Your task to perform on an android device: refresh tabs in the chrome app Image 0: 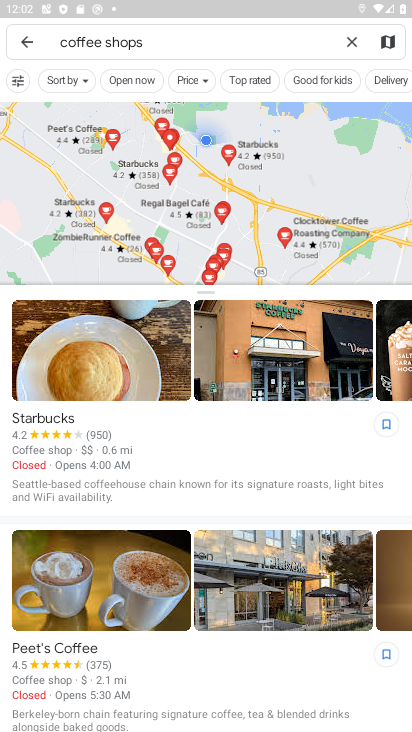
Step 0: press home button
Your task to perform on an android device: refresh tabs in the chrome app Image 1: 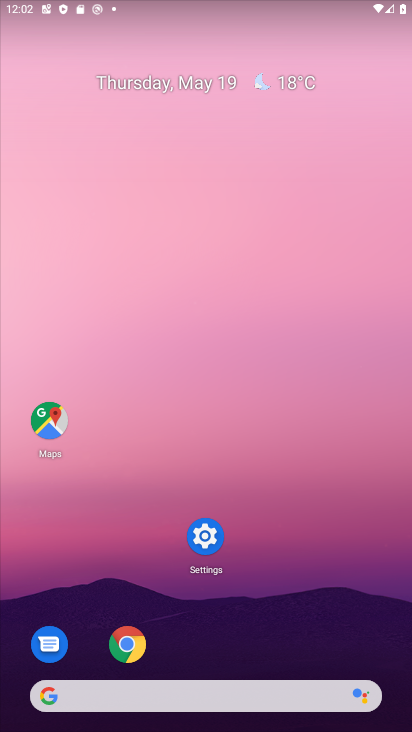
Step 1: click (124, 644)
Your task to perform on an android device: refresh tabs in the chrome app Image 2: 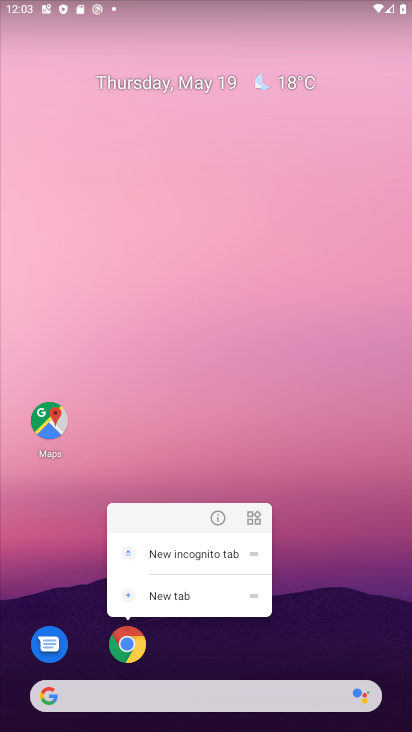
Step 2: click (127, 645)
Your task to perform on an android device: refresh tabs in the chrome app Image 3: 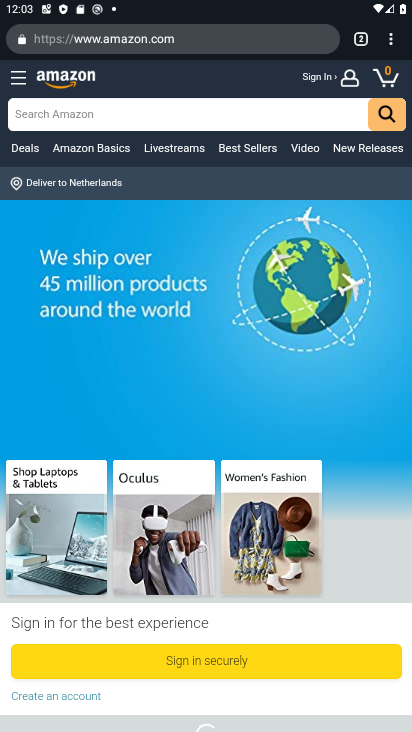
Step 3: click (392, 40)
Your task to perform on an android device: refresh tabs in the chrome app Image 4: 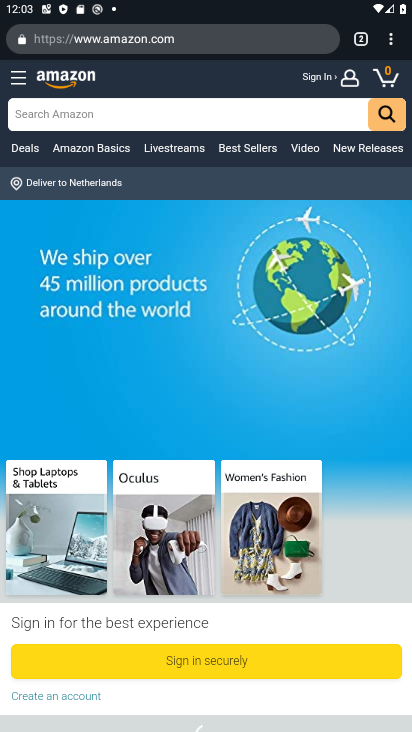
Step 4: task complete